Your task to perform on an android device: Go to Amazon Image 0: 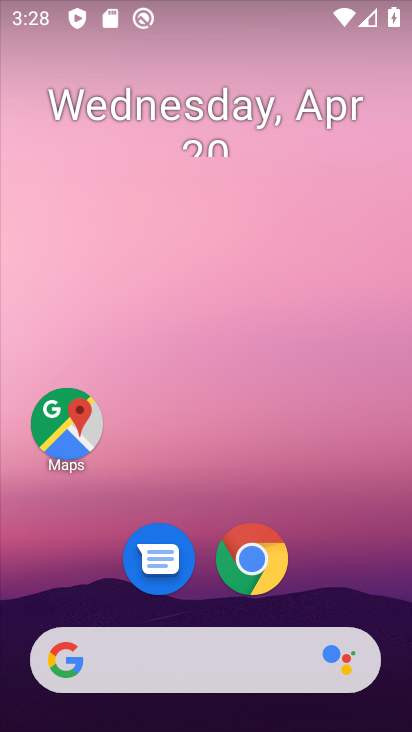
Step 0: click (254, 562)
Your task to perform on an android device: Go to Amazon Image 1: 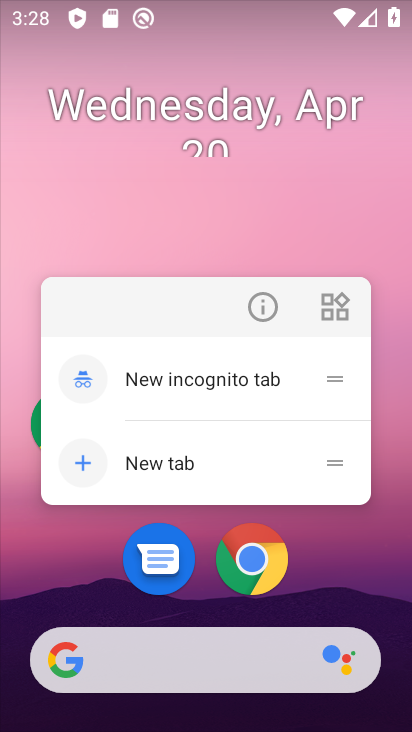
Step 1: click (275, 309)
Your task to perform on an android device: Go to Amazon Image 2: 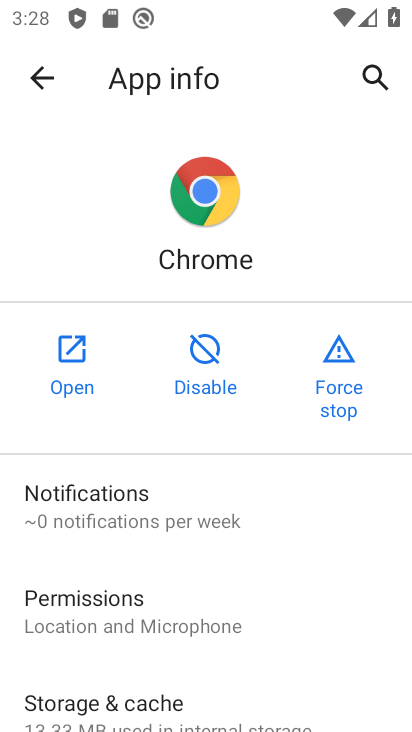
Step 2: click (76, 375)
Your task to perform on an android device: Go to Amazon Image 3: 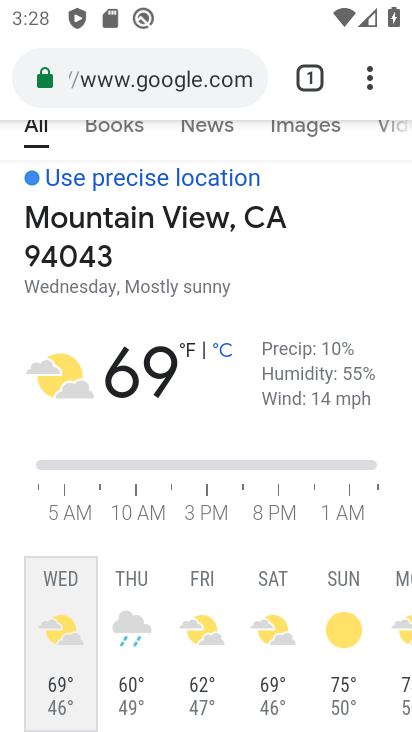
Step 3: click (220, 80)
Your task to perform on an android device: Go to Amazon Image 4: 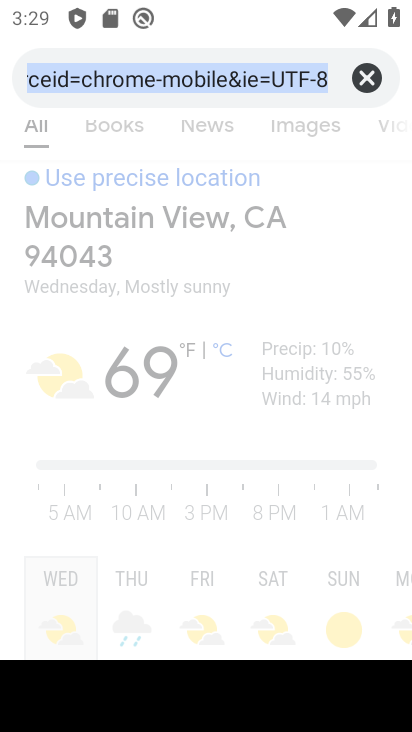
Step 4: type "amazon"
Your task to perform on an android device: Go to Amazon Image 5: 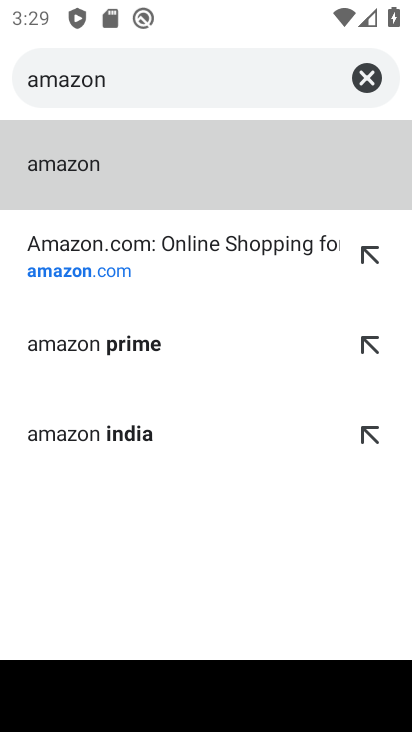
Step 5: click (153, 166)
Your task to perform on an android device: Go to Amazon Image 6: 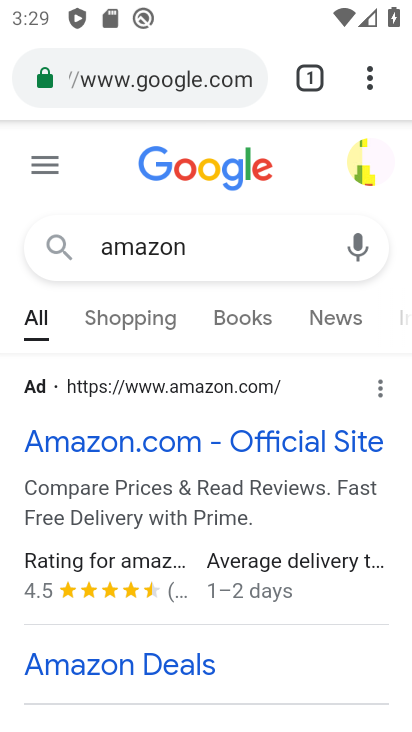
Step 6: task complete